Your task to perform on an android device: add a contact Image 0: 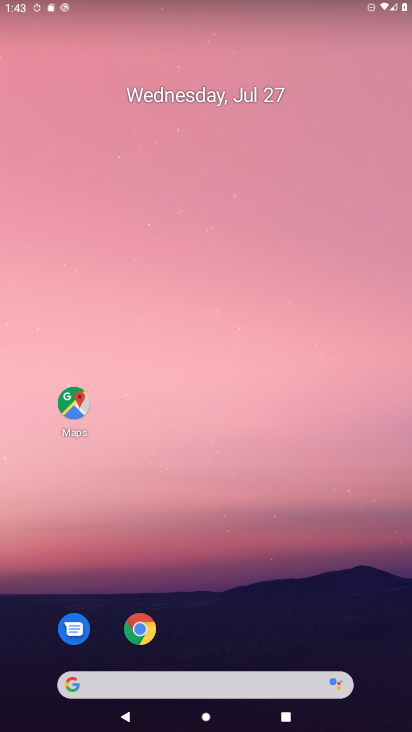
Step 0: press home button
Your task to perform on an android device: add a contact Image 1: 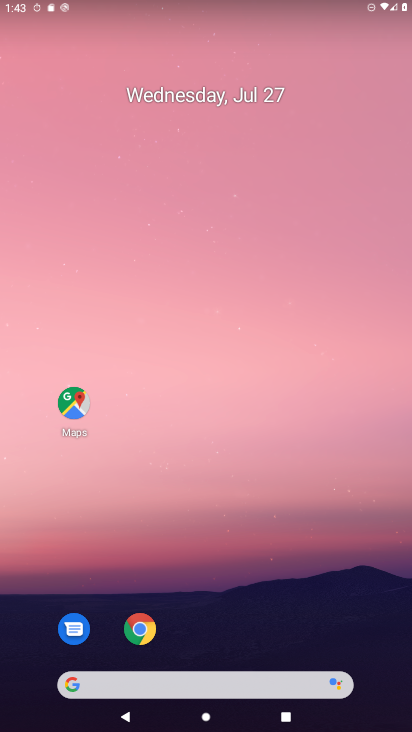
Step 1: drag from (254, 630) to (322, 66)
Your task to perform on an android device: add a contact Image 2: 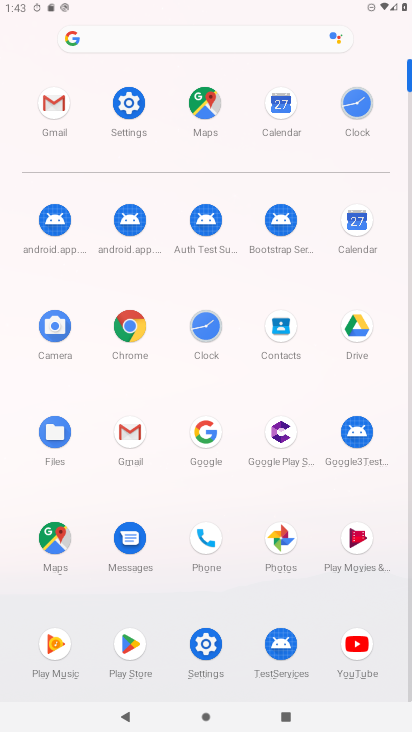
Step 2: click (275, 327)
Your task to perform on an android device: add a contact Image 3: 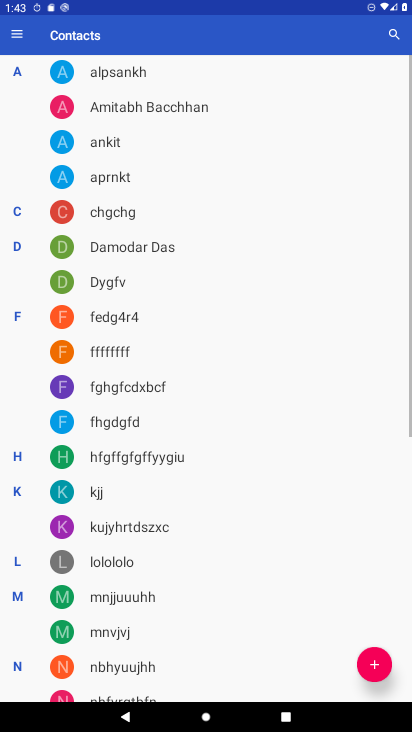
Step 3: click (385, 670)
Your task to perform on an android device: add a contact Image 4: 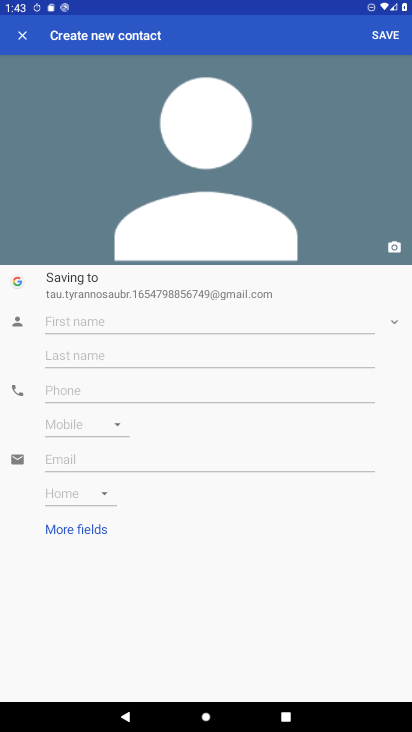
Step 4: click (102, 318)
Your task to perform on an android device: add a contact Image 5: 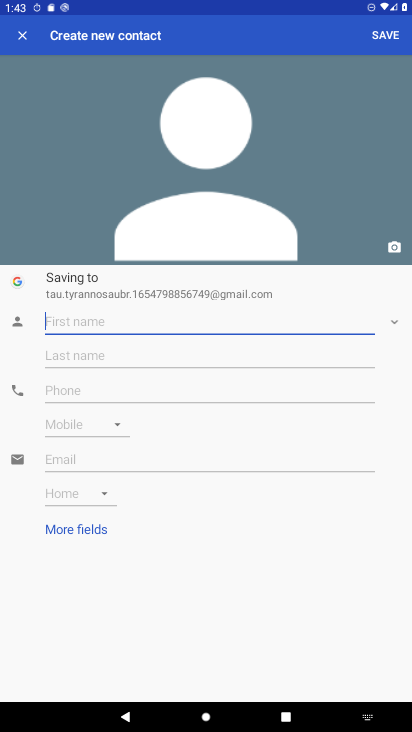
Step 5: type "bfbfbb"
Your task to perform on an android device: add a contact Image 6: 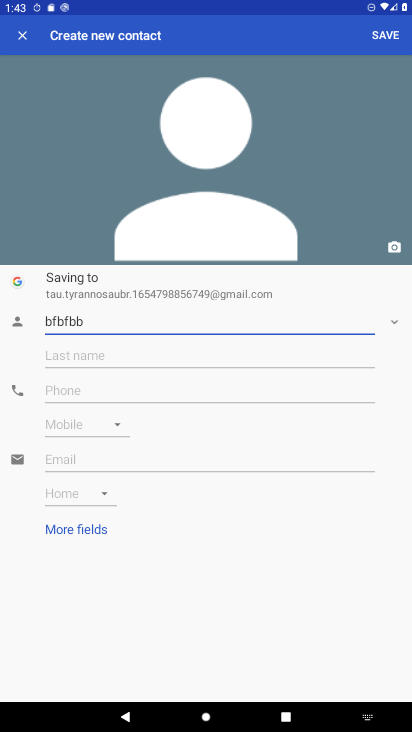
Step 6: click (112, 387)
Your task to perform on an android device: add a contact Image 7: 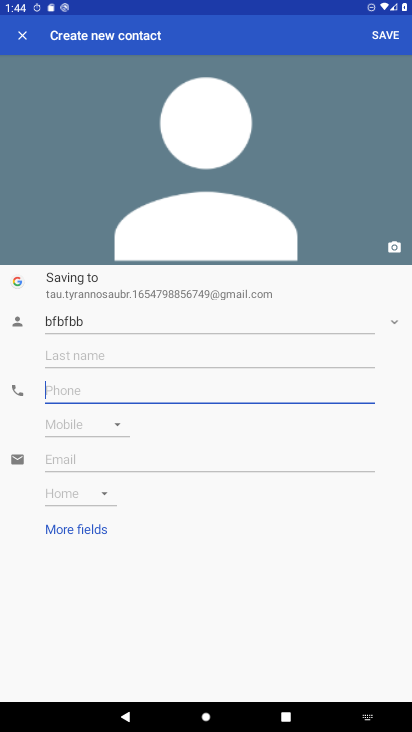
Step 7: type "65656565"
Your task to perform on an android device: add a contact Image 8: 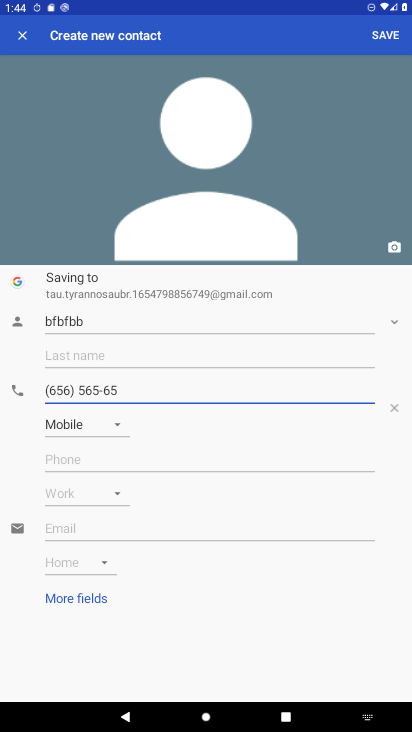
Step 8: click (390, 36)
Your task to perform on an android device: add a contact Image 9: 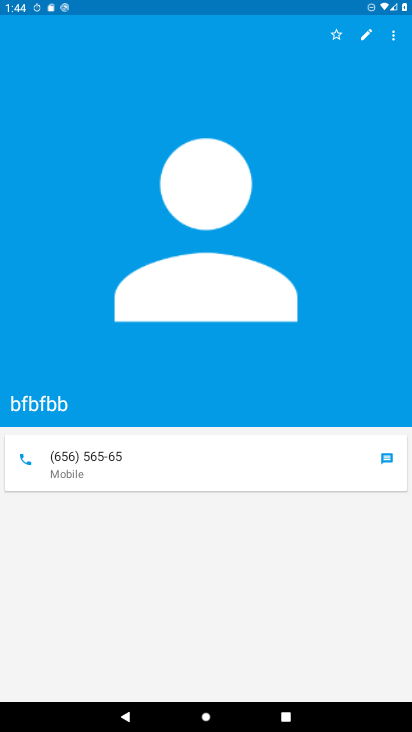
Step 9: task complete